Your task to perform on an android device: turn off sleep mode Image 0: 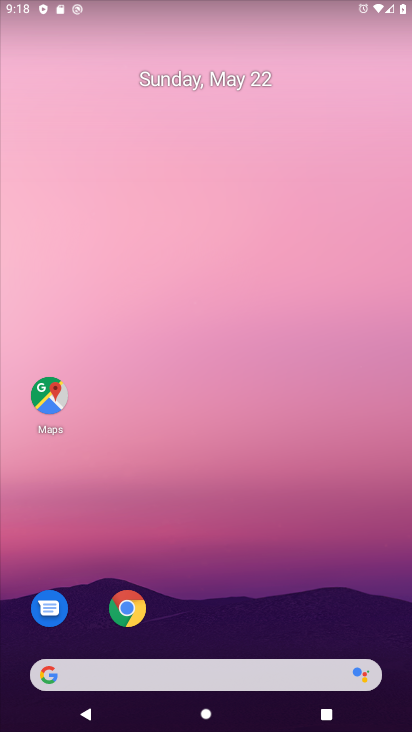
Step 0: drag from (266, 584) to (213, 8)
Your task to perform on an android device: turn off sleep mode Image 1: 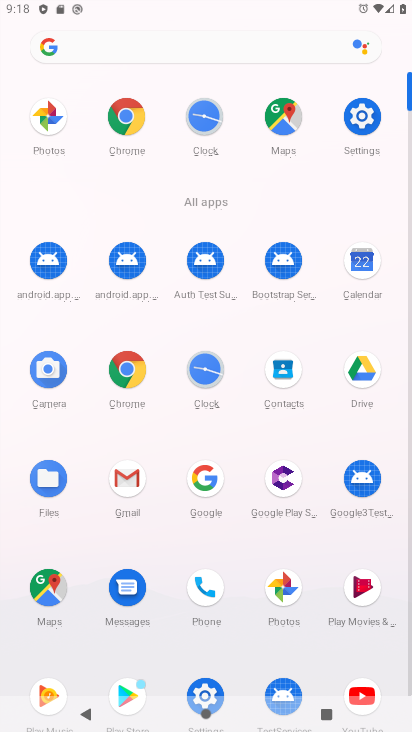
Step 1: click (363, 117)
Your task to perform on an android device: turn off sleep mode Image 2: 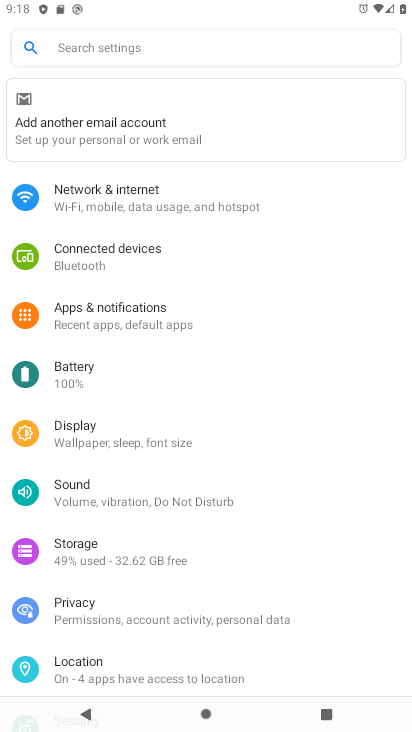
Step 2: click (173, 196)
Your task to perform on an android device: turn off sleep mode Image 3: 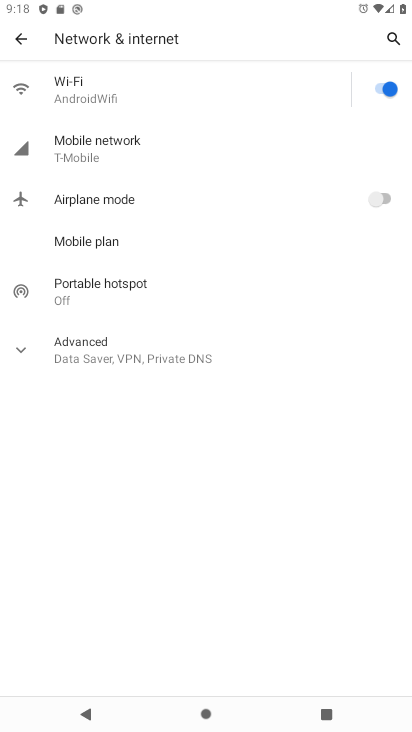
Step 3: click (24, 39)
Your task to perform on an android device: turn off sleep mode Image 4: 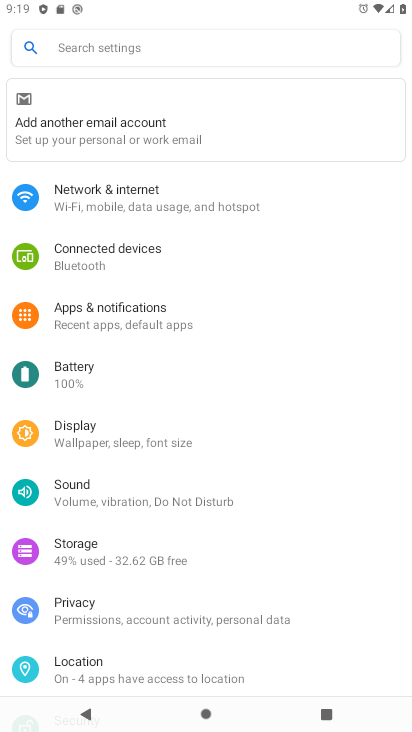
Step 4: click (132, 423)
Your task to perform on an android device: turn off sleep mode Image 5: 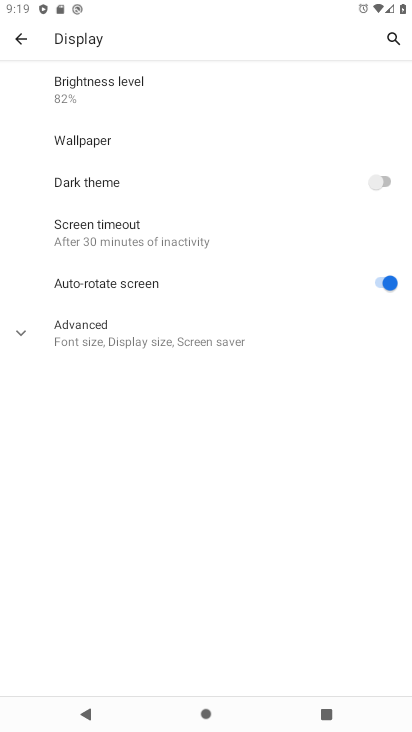
Step 5: click (25, 328)
Your task to perform on an android device: turn off sleep mode Image 6: 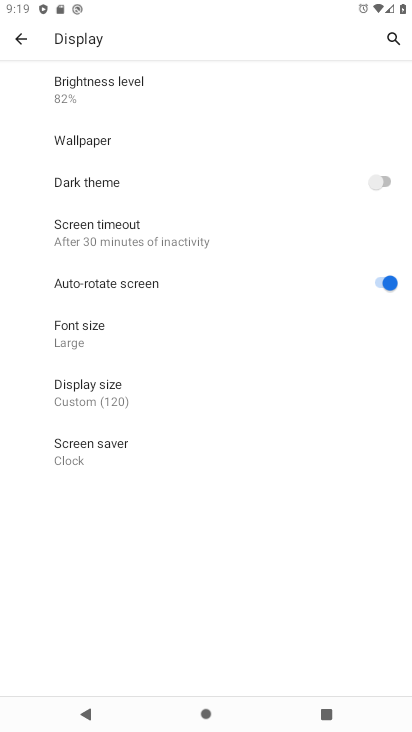
Step 6: task complete